Your task to perform on an android device: change the clock display to digital Image 0: 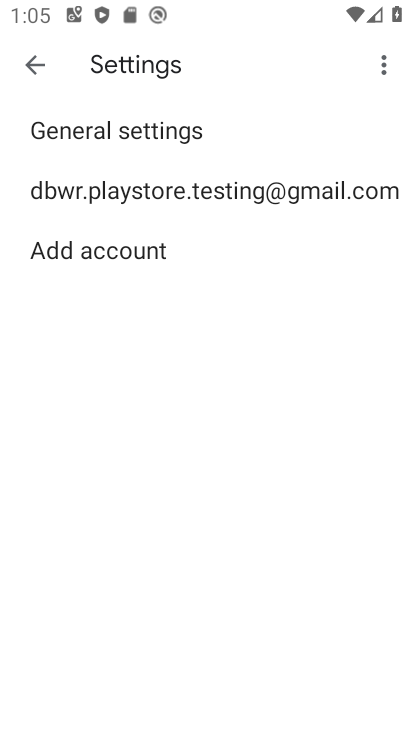
Step 0: press home button
Your task to perform on an android device: change the clock display to digital Image 1: 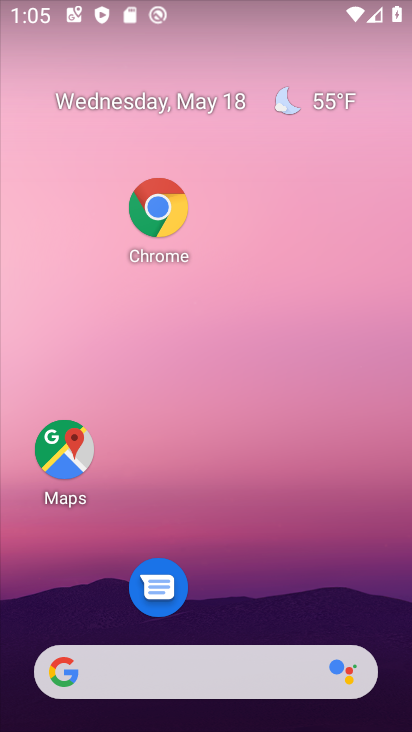
Step 1: drag from (254, 438) to (252, 34)
Your task to perform on an android device: change the clock display to digital Image 2: 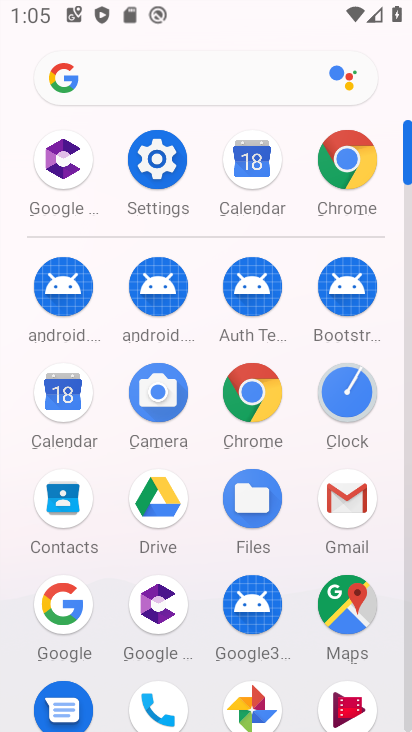
Step 2: click (332, 405)
Your task to perform on an android device: change the clock display to digital Image 3: 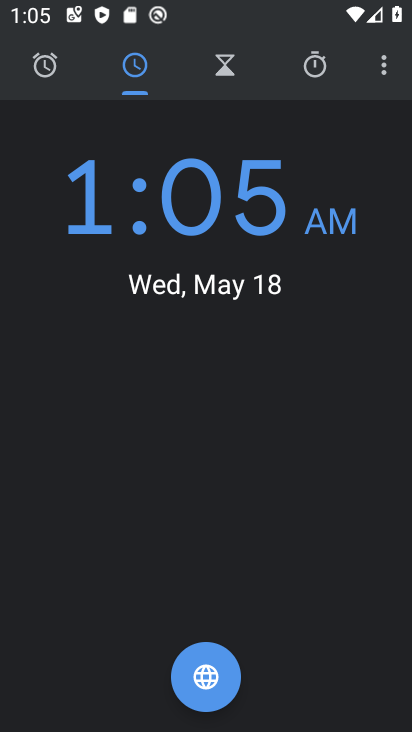
Step 3: click (389, 72)
Your task to perform on an android device: change the clock display to digital Image 4: 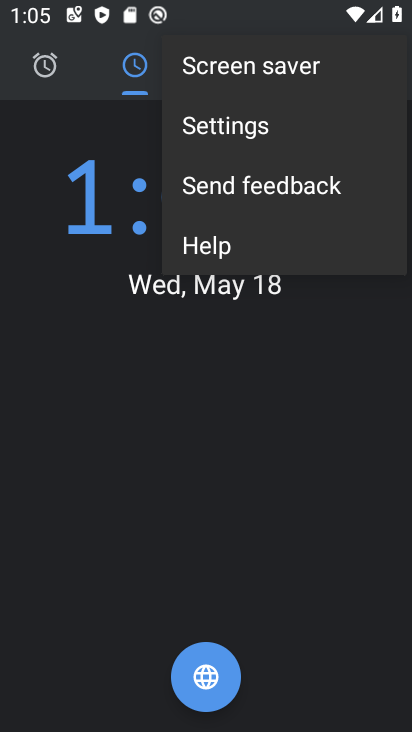
Step 4: click (272, 124)
Your task to perform on an android device: change the clock display to digital Image 5: 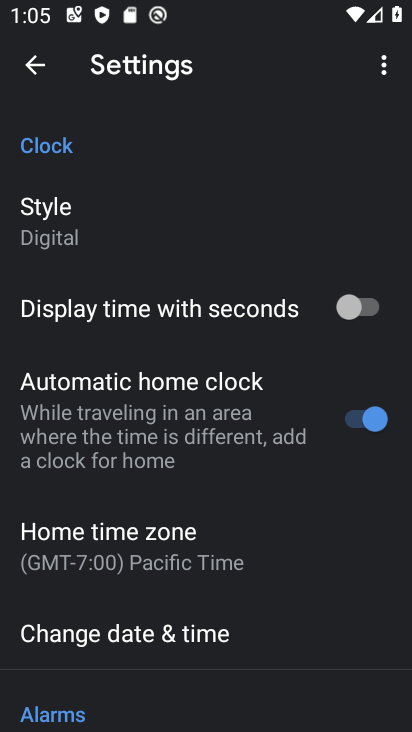
Step 5: task complete